Your task to perform on an android device: clear all cookies in the chrome app Image 0: 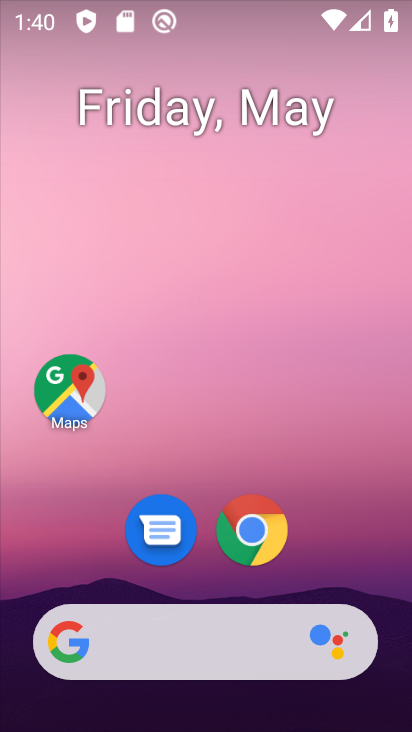
Step 0: drag from (209, 438) to (253, 91)
Your task to perform on an android device: clear all cookies in the chrome app Image 1: 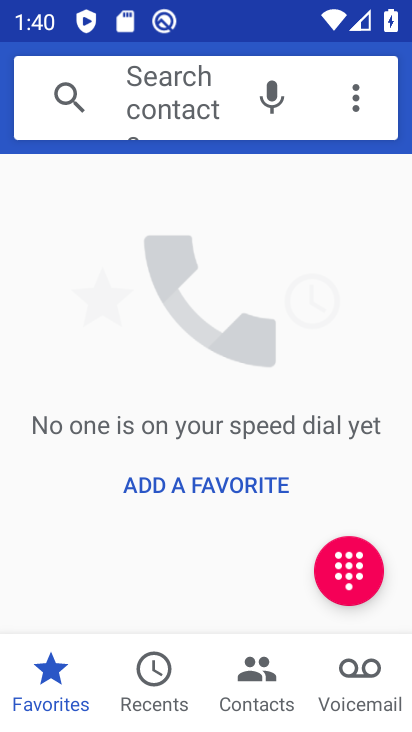
Step 1: press home button
Your task to perform on an android device: clear all cookies in the chrome app Image 2: 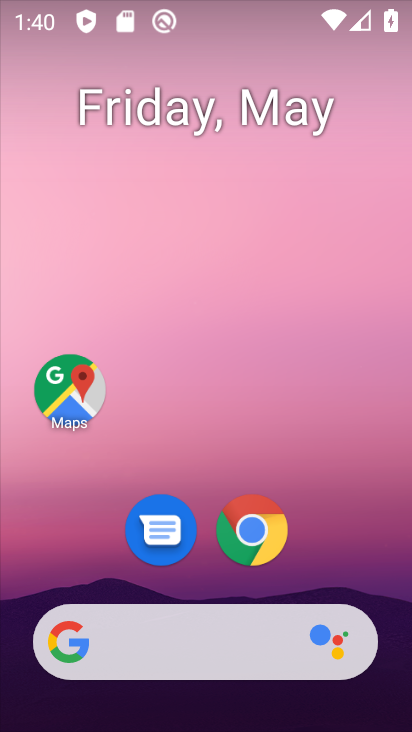
Step 2: drag from (213, 483) to (262, 74)
Your task to perform on an android device: clear all cookies in the chrome app Image 3: 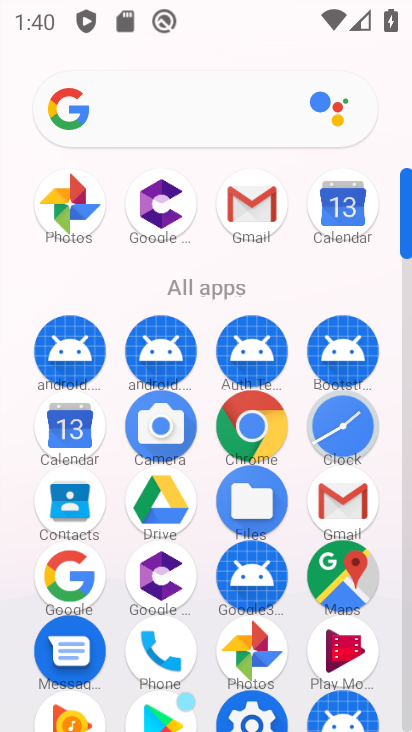
Step 3: click (250, 435)
Your task to perform on an android device: clear all cookies in the chrome app Image 4: 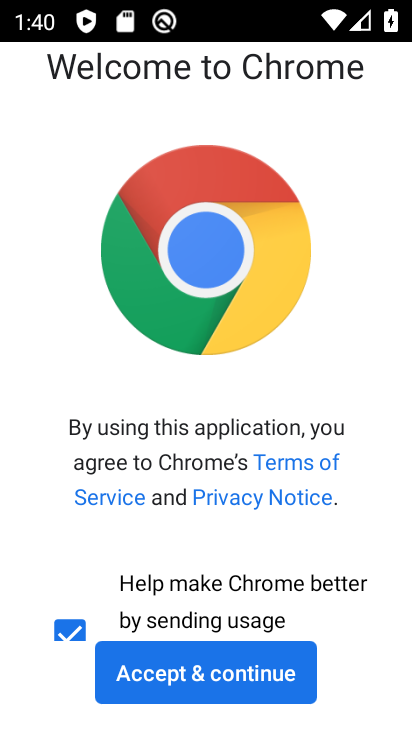
Step 4: click (216, 693)
Your task to perform on an android device: clear all cookies in the chrome app Image 5: 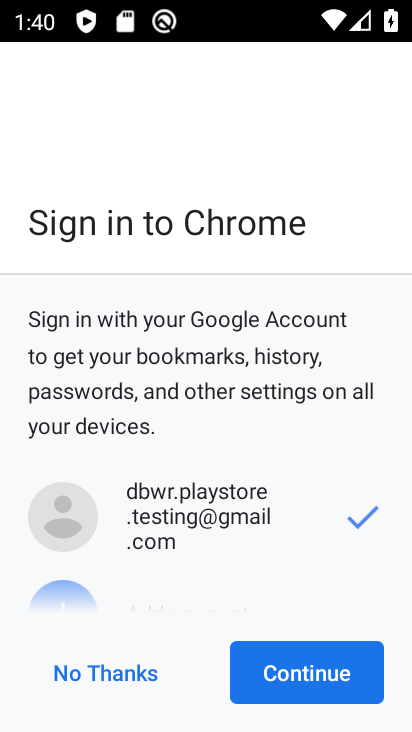
Step 5: click (326, 678)
Your task to perform on an android device: clear all cookies in the chrome app Image 6: 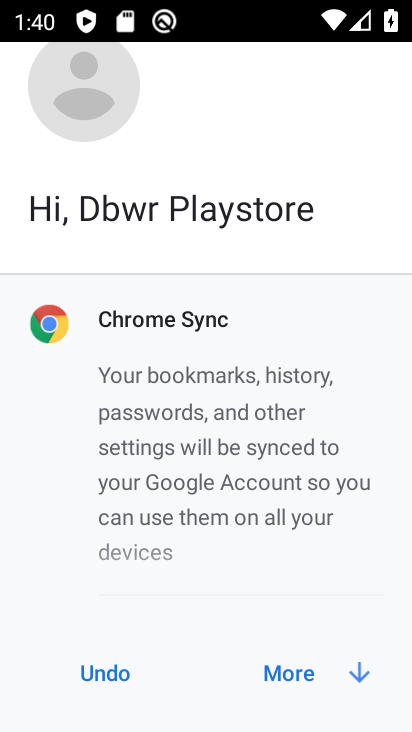
Step 6: click (326, 678)
Your task to perform on an android device: clear all cookies in the chrome app Image 7: 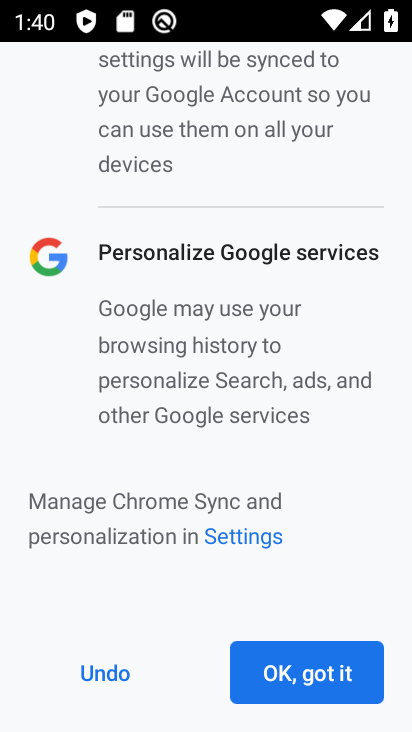
Step 7: click (326, 678)
Your task to perform on an android device: clear all cookies in the chrome app Image 8: 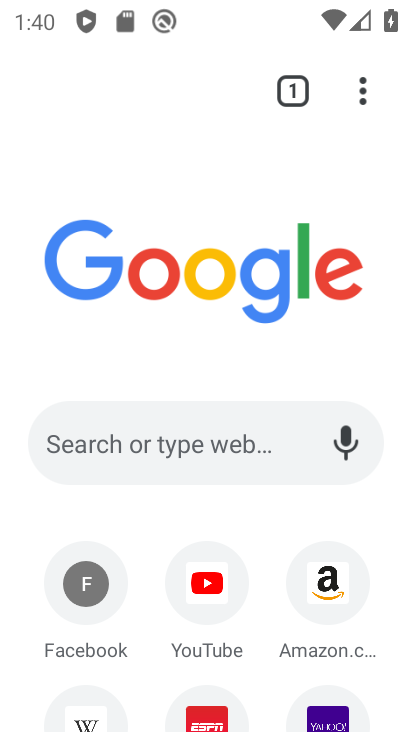
Step 8: click (364, 98)
Your task to perform on an android device: clear all cookies in the chrome app Image 9: 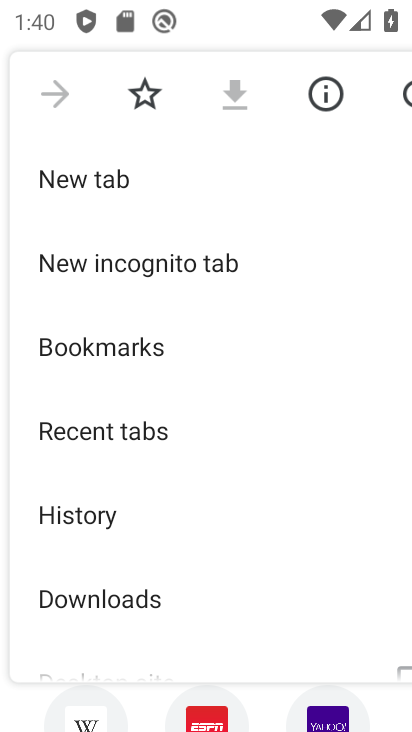
Step 9: click (103, 519)
Your task to perform on an android device: clear all cookies in the chrome app Image 10: 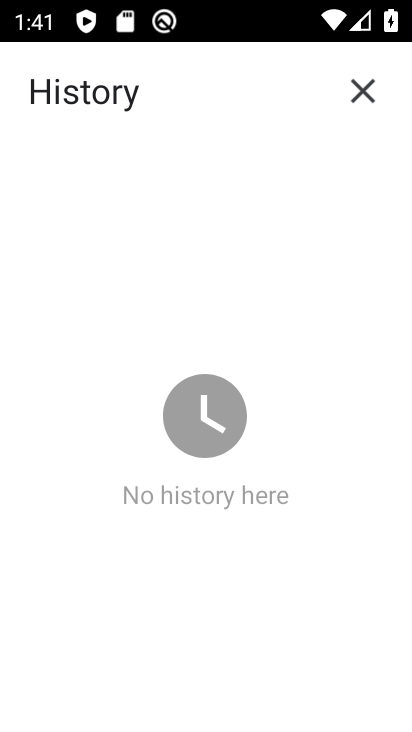
Step 10: task complete